Your task to perform on an android device: delete a single message in the gmail app Image 0: 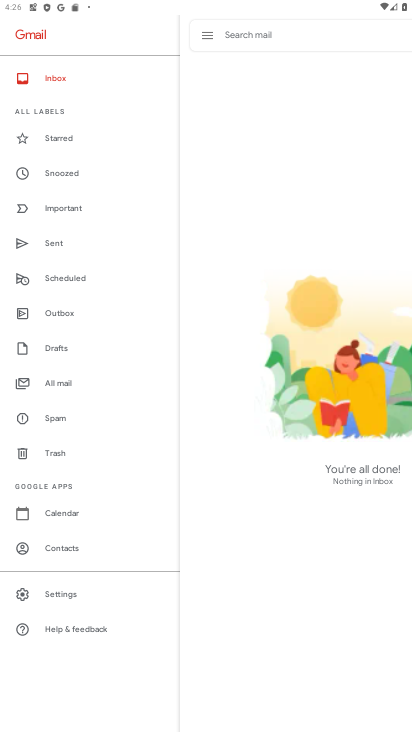
Step 0: click (52, 384)
Your task to perform on an android device: delete a single message in the gmail app Image 1: 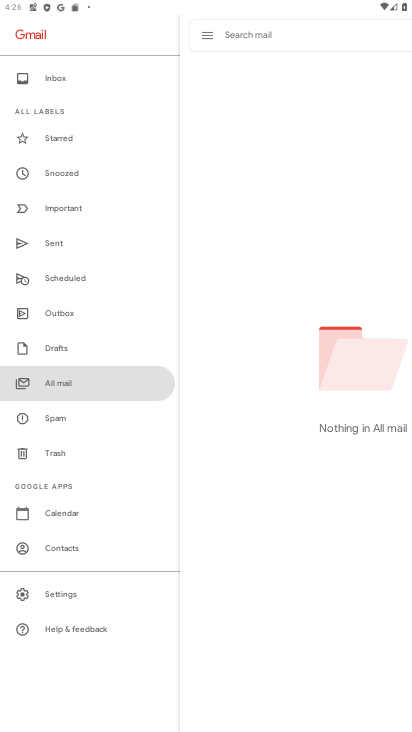
Step 1: task complete